Your task to perform on an android device: Open Chrome and go to the settings page Image 0: 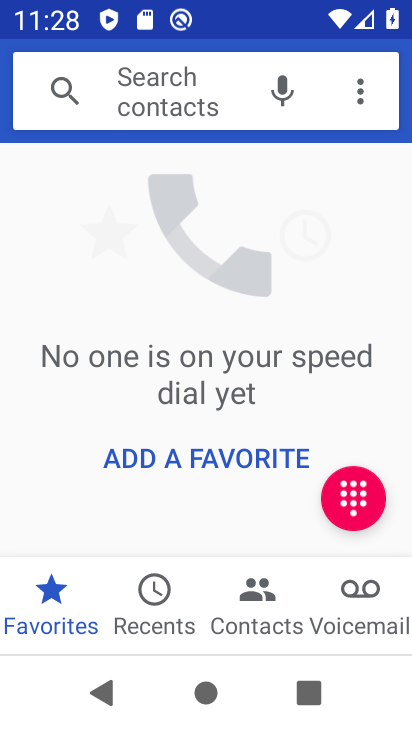
Step 0: press home button
Your task to perform on an android device: Open Chrome and go to the settings page Image 1: 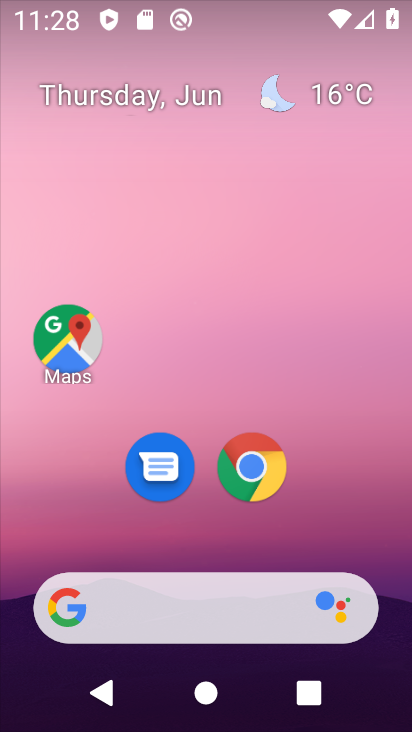
Step 1: click (254, 464)
Your task to perform on an android device: Open Chrome and go to the settings page Image 2: 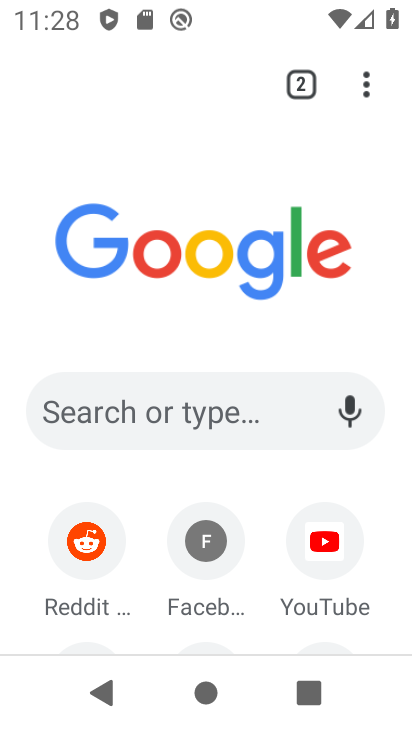
Step 2: click (361, 94)
Your task to perform on an android device: Open Chrome and go to the settings page Image 3: 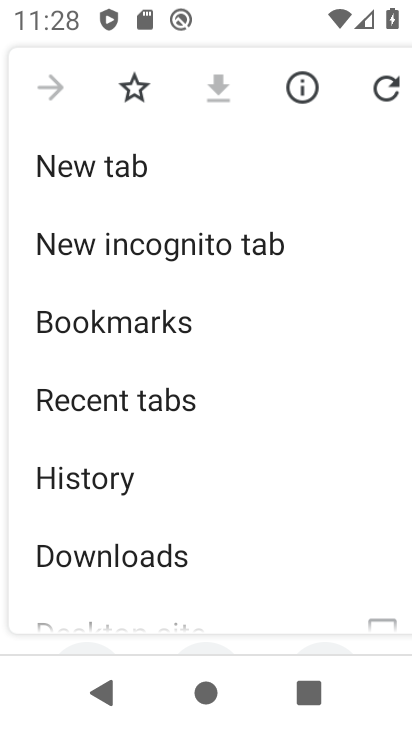
Step 3: drag from (215, 587) to (257, 169)
Your task to perform on an android device: Open Chrome and go to the settings page Image 4: 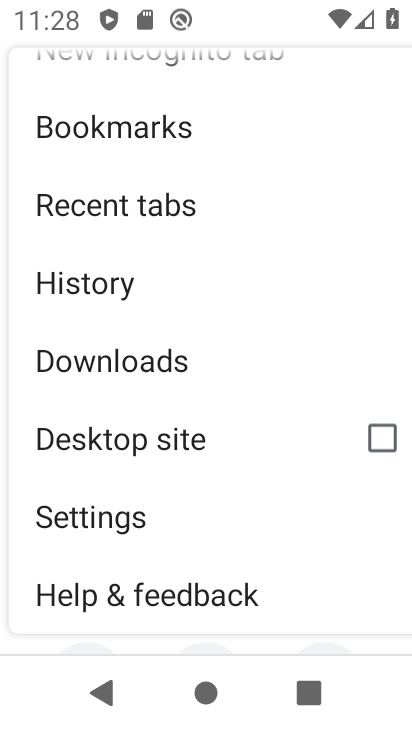
Step 4: click (76, 511)
Your task to perform on an android device: Open Chrome and go to the settings page Image 5: 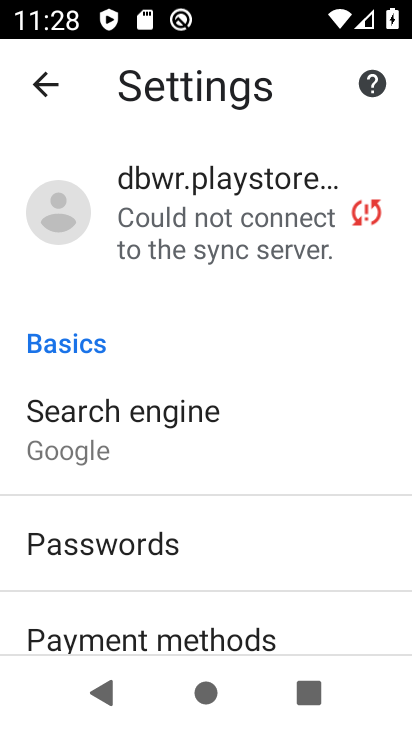
Step 5: task complete